Your task to perform on an android device: Open Youtube and go to "Your channel" Image 0: 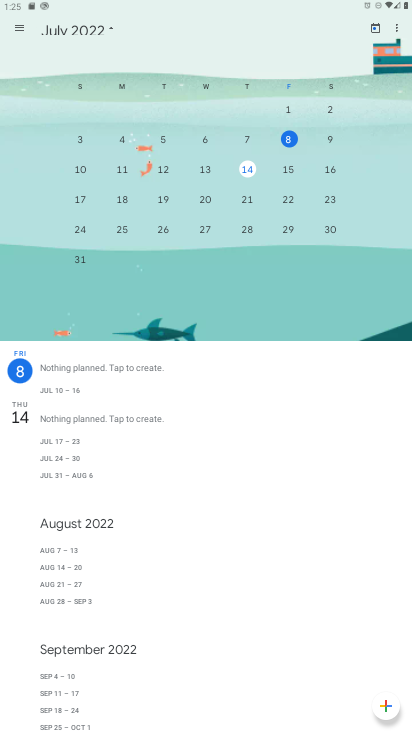
Step 0: press home button
Your task to perform on an android device: Open Youtube and go to "Your channel" Image 1: 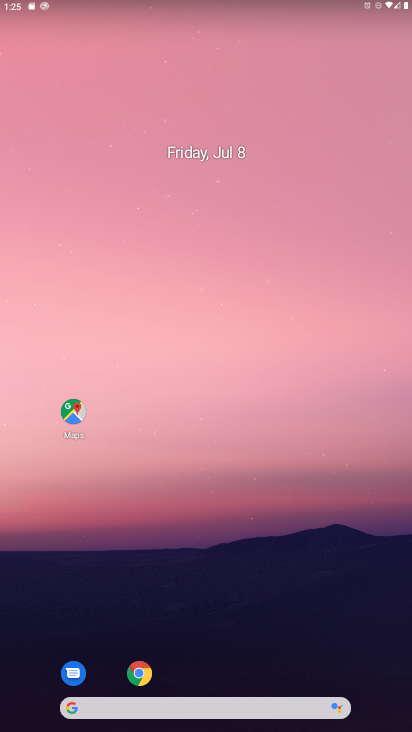
Step 1: drag from (372, 711) to (371, 150)
Your task to perform on an android device: Open Youtube and go to "Your channel" Image 2: 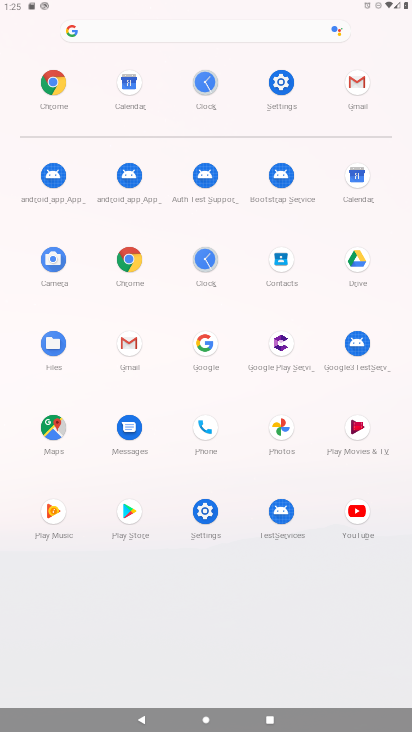
Step 2: click (356, 643)
Your task to perform on an android device: Open Youtube and go to "Your channel" Image 3: 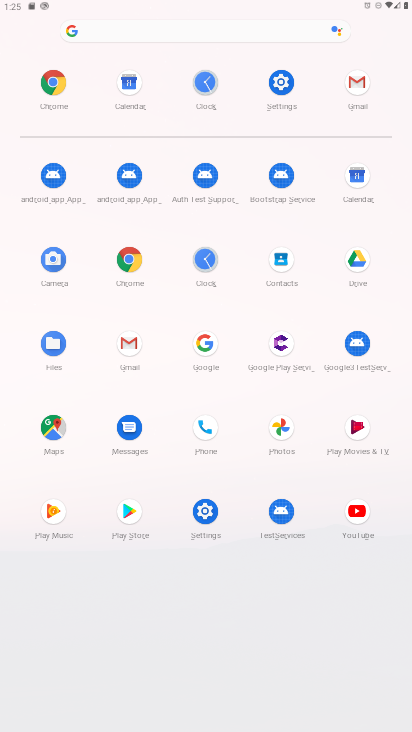
Step 3: click (358, 512)
Your task to perform on an android device: Open Youtube and go to "Your channel" Image 4: 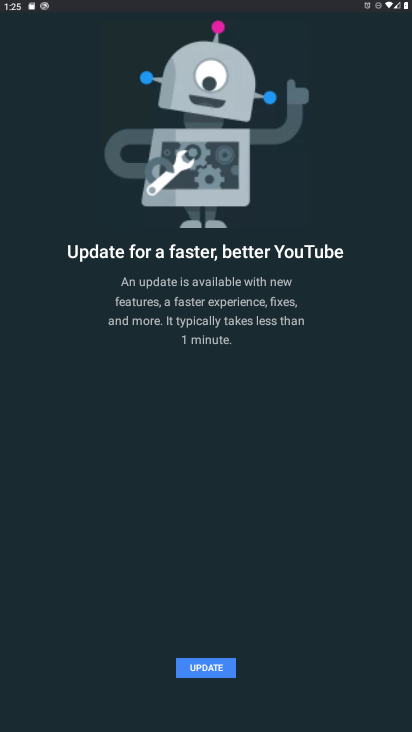
Step 4: click (202, 664)
Your task to perform on an android device: Open Youtube and go to "Your channel" Image 5: 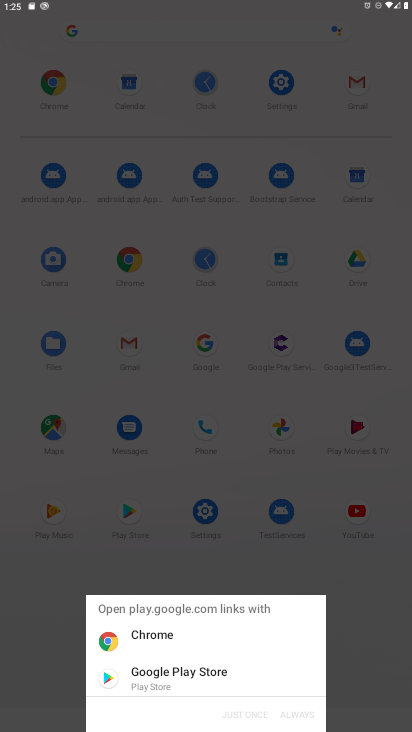
Step 5: click (160, 675)
Your task to perform on an android device: Open Youtube and go to "Your channel" Image 6: 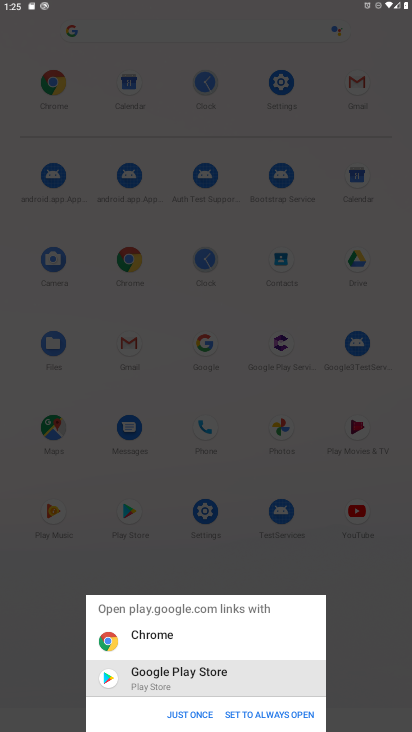
Step 6: click (171, 707)
Your task to perform on an android device: Open Youtube and go to "Your channel" Image 7: 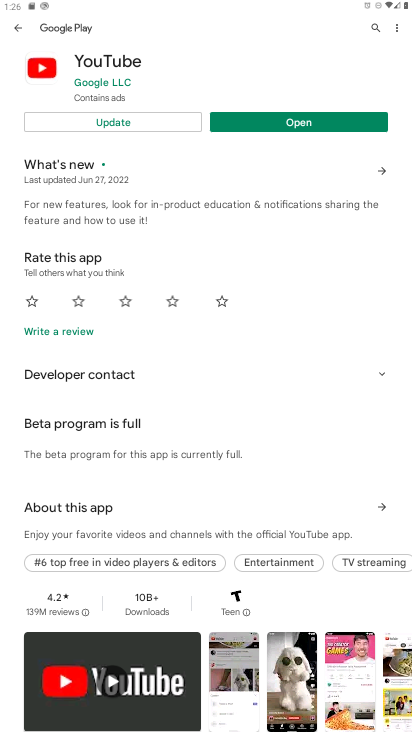
Step 7: click (157, 119)
Your task to perform on an android device: Open Youtube and go to "Your channel" Image 8: 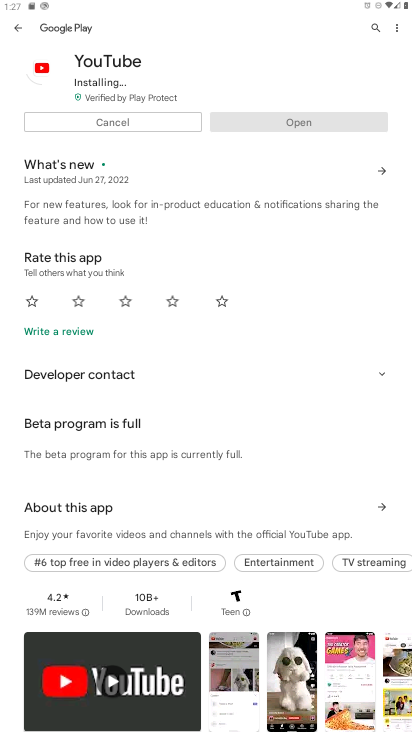
Step 8: click (270, 120)
Your task to perform on an android device: Open Youtube and go to "Your channel" Image 9: 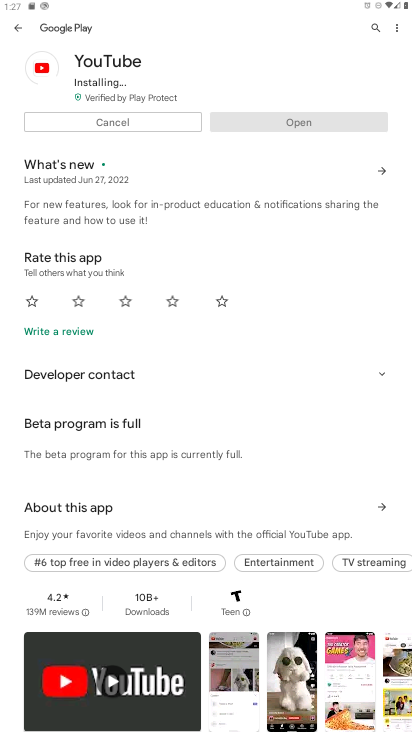
Step 9: task complete